Your task to perform on an android device: Open the Play Movies app and select the watchlist tab. Image 0: 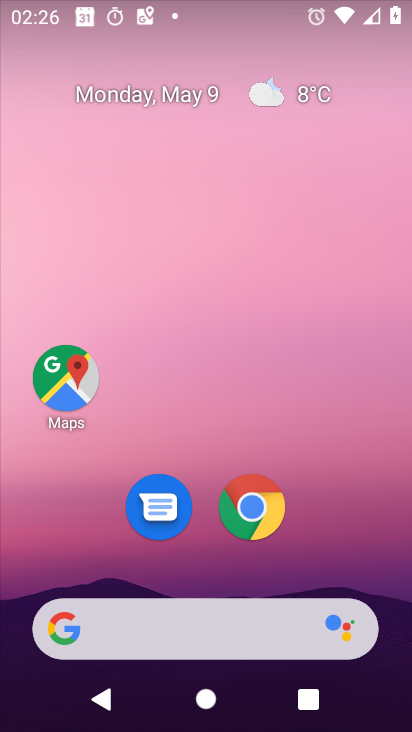
Step 0: drag from (193, 719) to (192, 360)
Your task to perform on an android device: Open the Play Movies app and select the watchlist tab. Image 1: 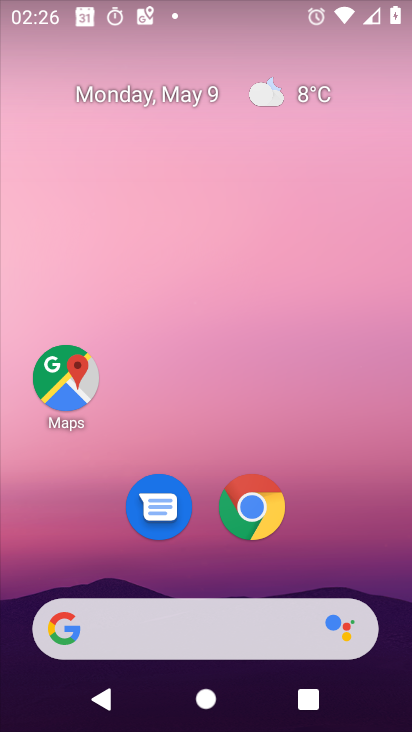
Step 1: drag from (209, 729) to (204, 350)
Your task to perform on an android device: Open the Play Movies app and select the watchlist tab. Image 2: 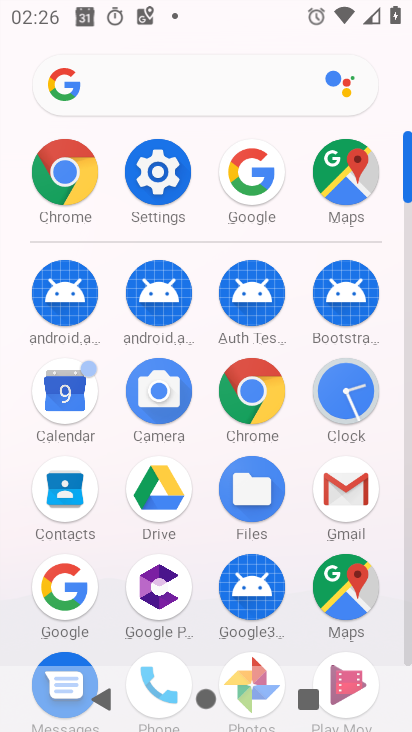
Step 2: drag from (301, 618) to (301, 369)
Your task to perform on an android device: Open the Play Movies app and select the watchlist tab. Image 3: 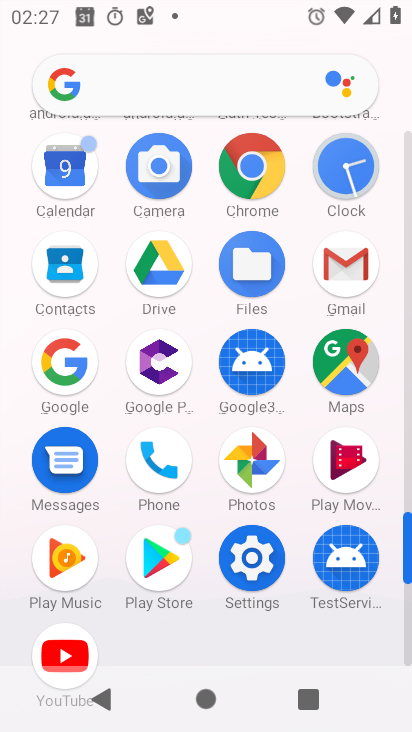
Step 3: click (350, 468)
Your task to perform on an android device: Open the Play Movies app and select the watchlist tab. Image 4: 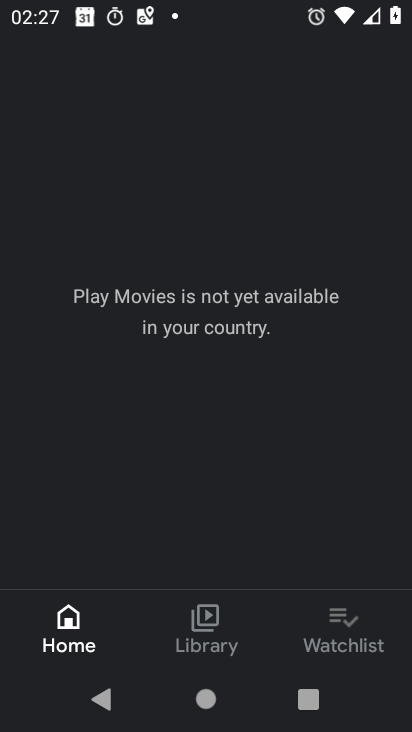
Step 4: click (344, 635)
Your task to perform on an android device: Open the Play Movies app and select the watchlist tab. Image 5: 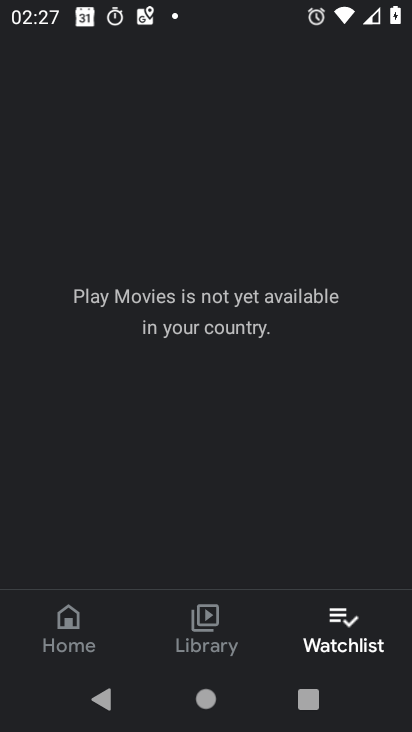
Step 5: task complete